Your task to perform on an android device: Find coffee shops on Maps Image 0: 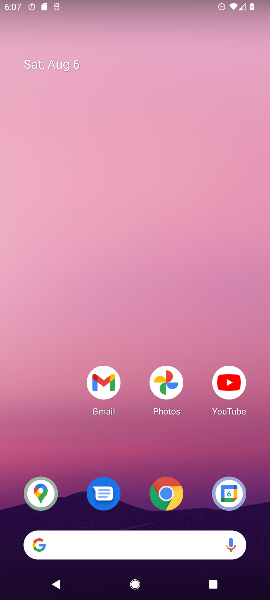
Step 0: drag from (152, 540) to (108, 241)
Your task to perform on an android device: Find coffee shops on Maps Image 1: 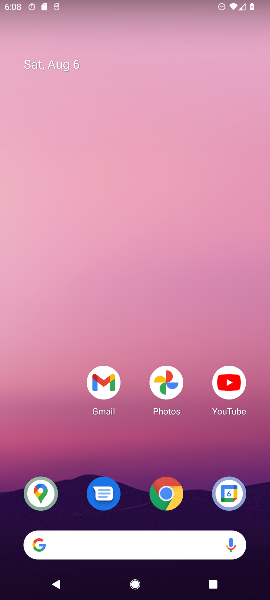
Step 1: drag from (116, 450) to (126, 156)
Your task to perform on an android device: Find coffee shops on Maps Image 2: 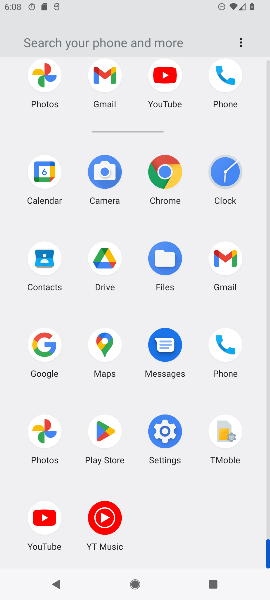
Step 2: click (96, 348)
Your task to perform on an android device: Find coffee shops on Maps Image 3: 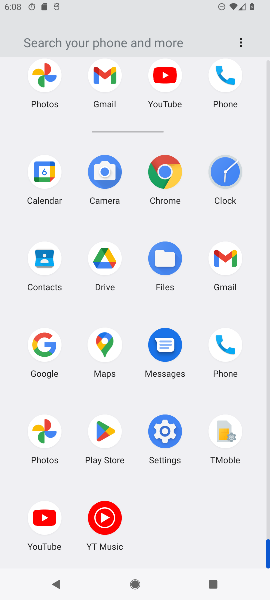
Step 3: click (96, 349)
Your task to perform on an android device: Find coffee shops on Maps Image 4: 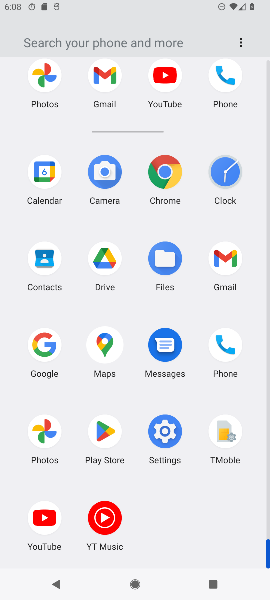
Step 4: click (97, 309)
Your task to perform on an android device: Find coffee shops on Maps Image 5: 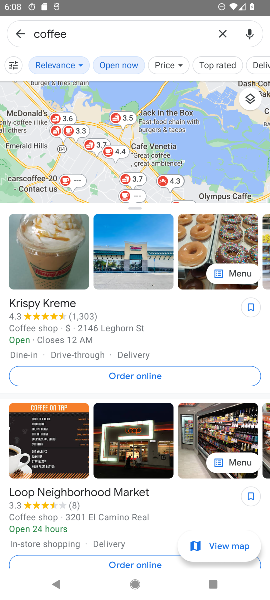
Step 5: task complete